Your task to perform on an android device: open app "Google Play services" Image 0: 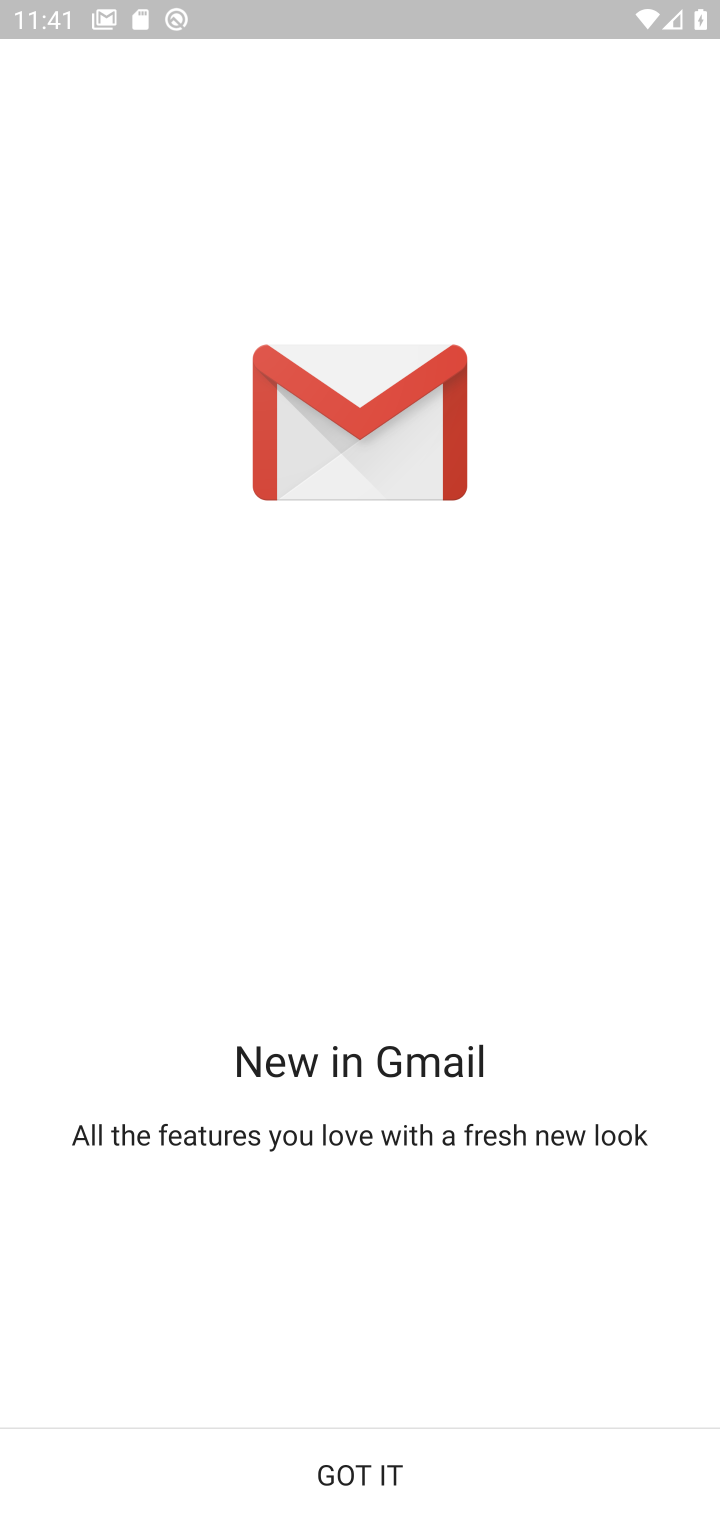
Step 0: press back button
Your task to perform on an android device: open app "Google Play services" Image 1: 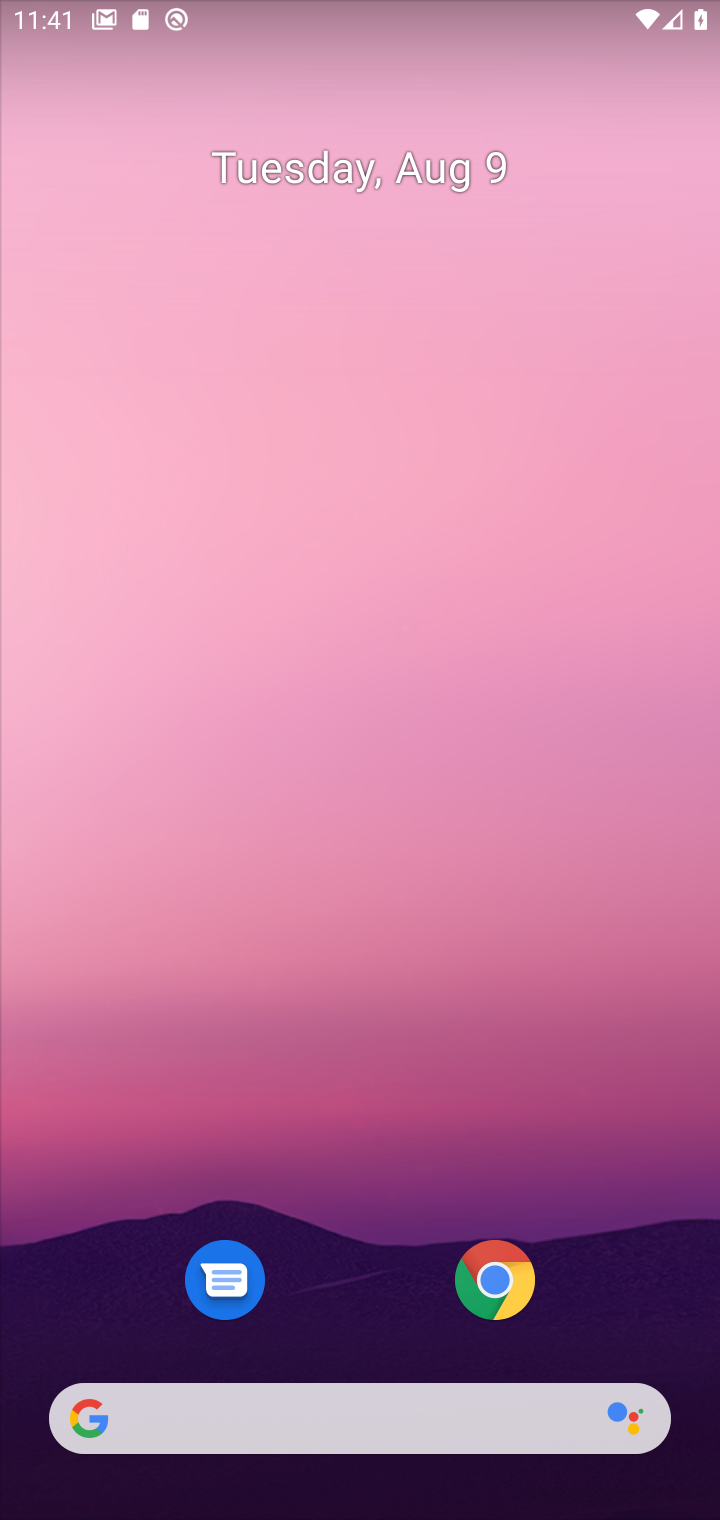
Step 1: drag from (363, 1225) to (577, 263)
Your task to perform on an android device: open app "Google Play services" Image 2: 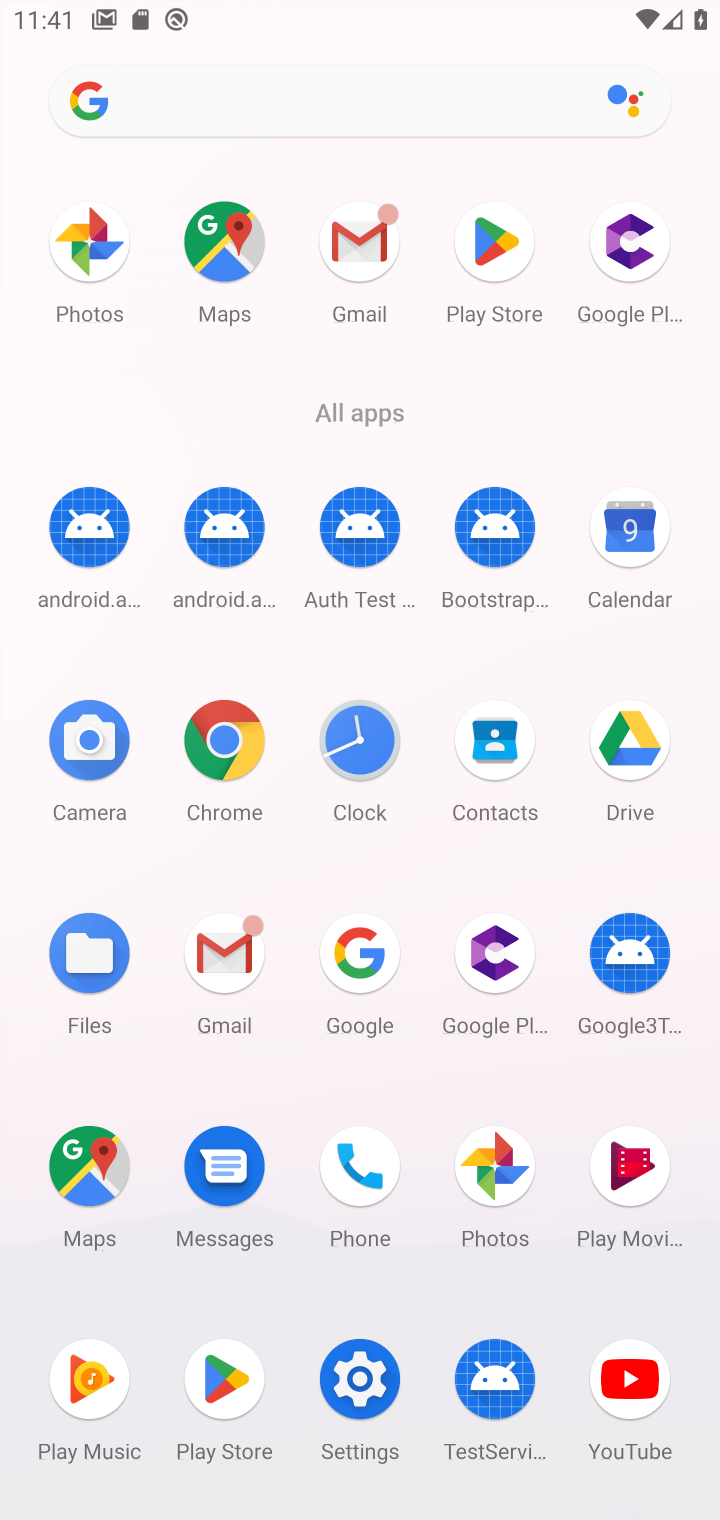
Step 2: click (500, 232)
Your task to perform on an android device: open app "Google Play services" Image 3: 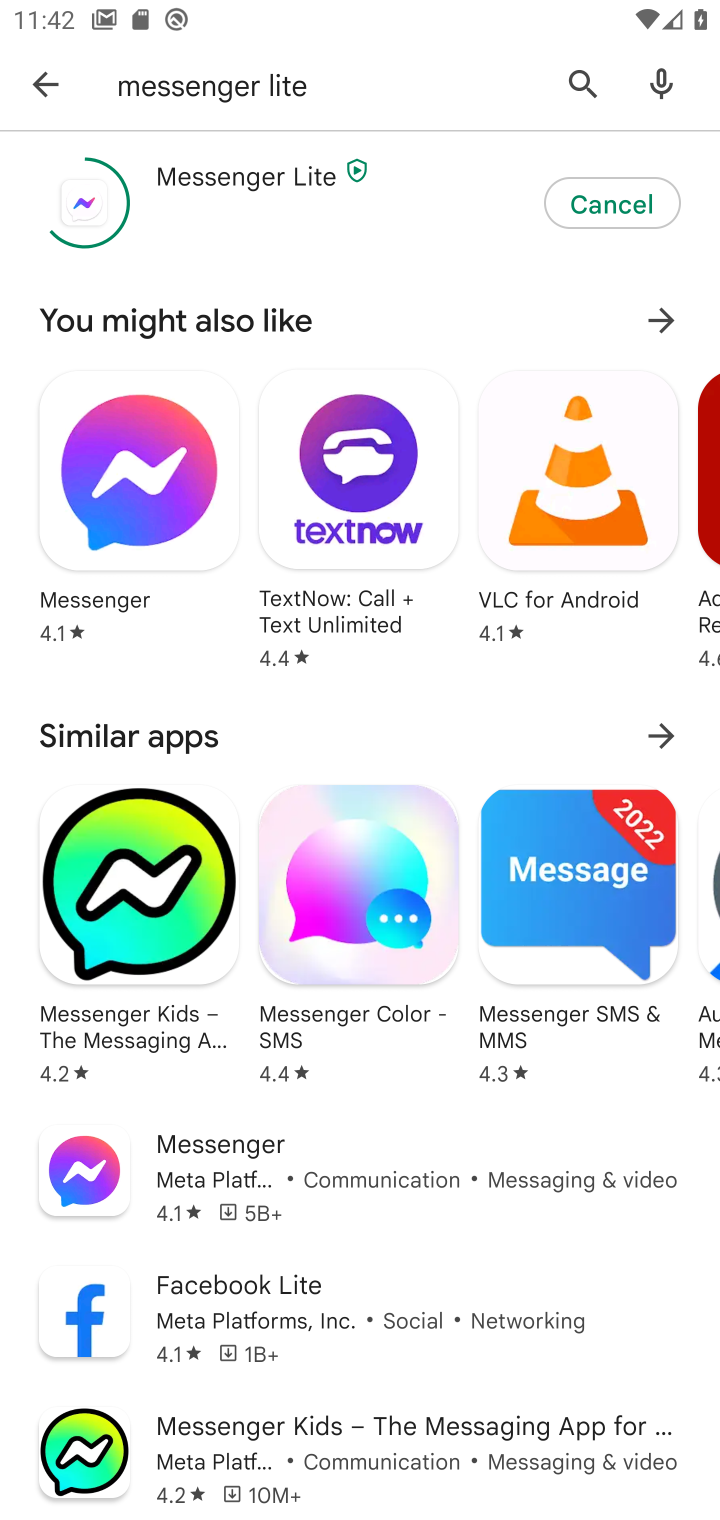
Step 3: click (599, 69)
Your task to perform on an android device: open app "Google Play services" Image 4: 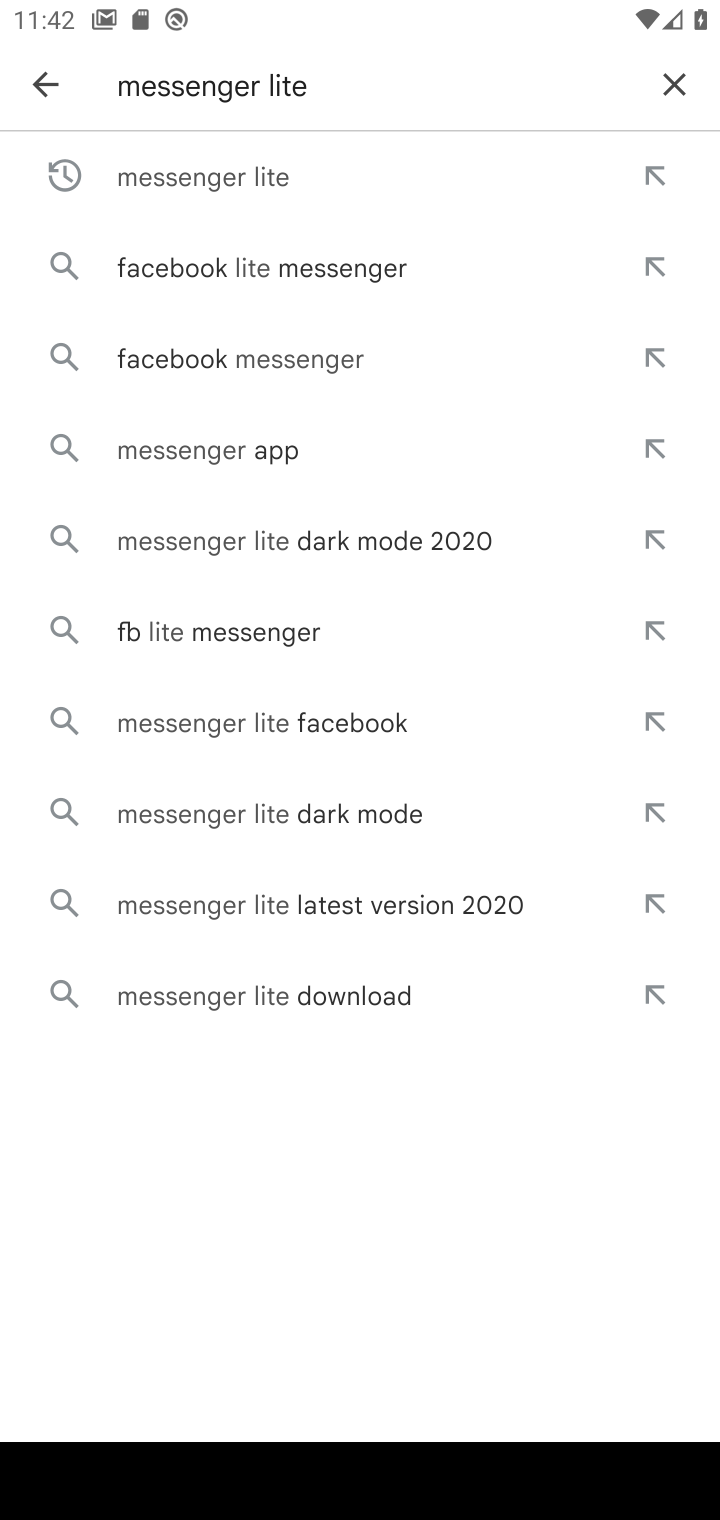
Step 4: click (668, 81)
Your task to perform on an android device: open app "Google Play services" Image 5: 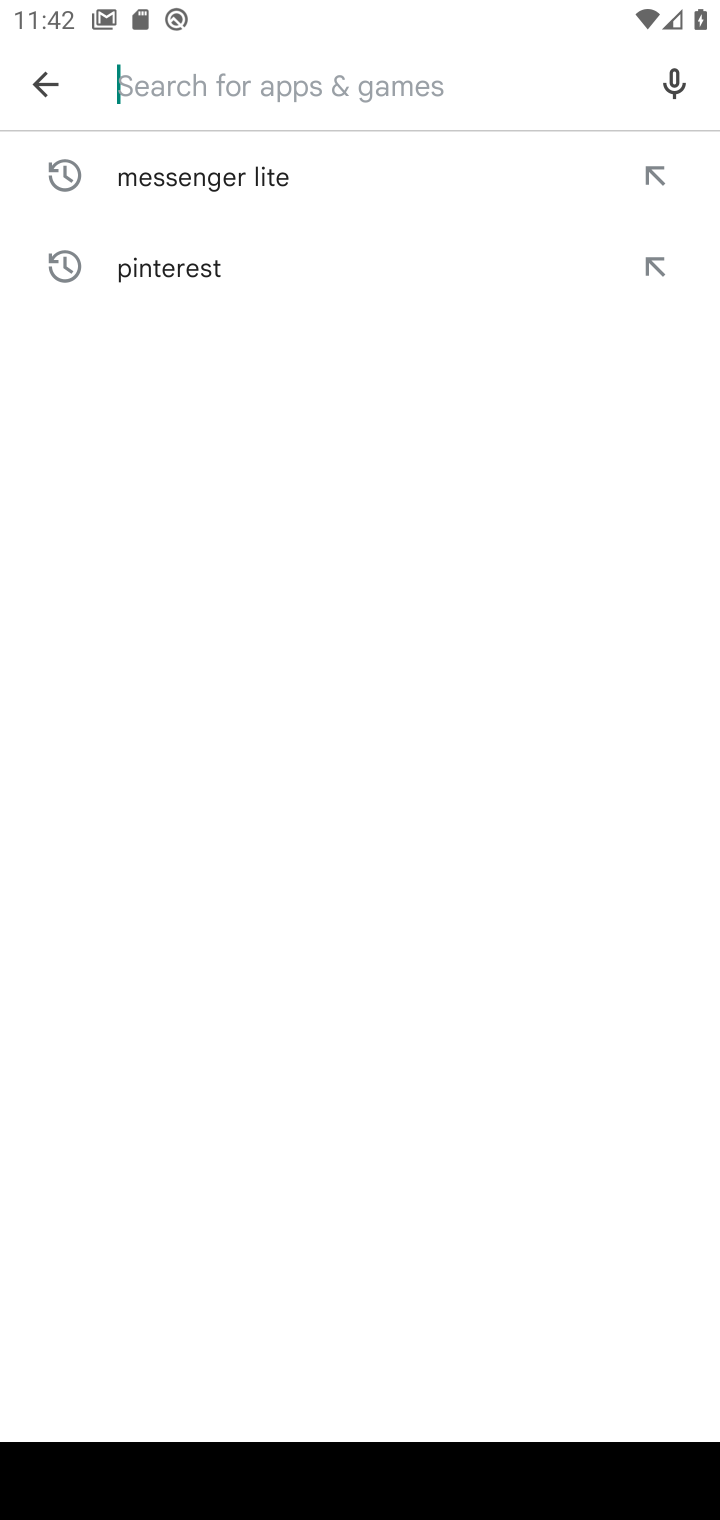
Step 5: click (208, 81)
Your task to perform on an android device: open app "Google Play services" Image 6: 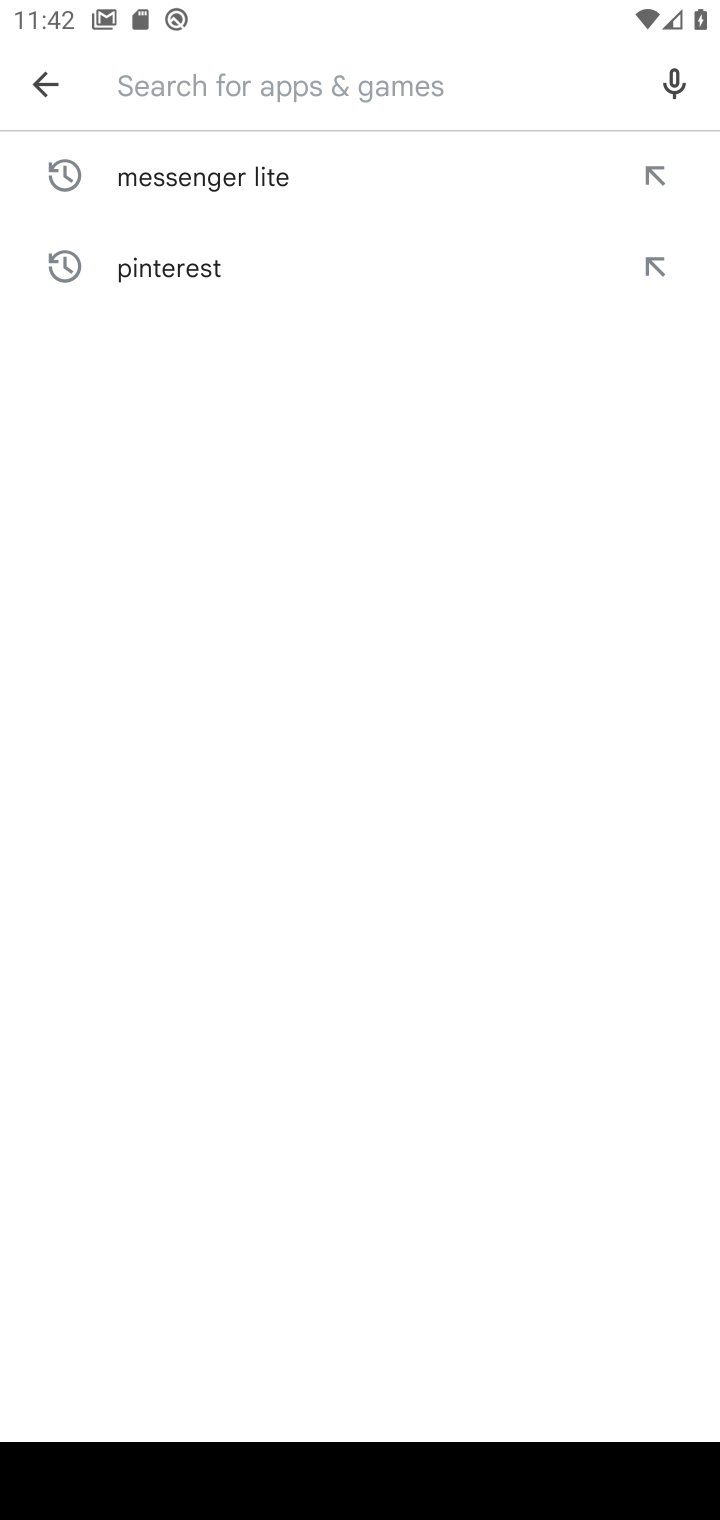
Step 6: type "Google Play services"
Your task to perform on an android device: open app "Google Play services" Image 7: 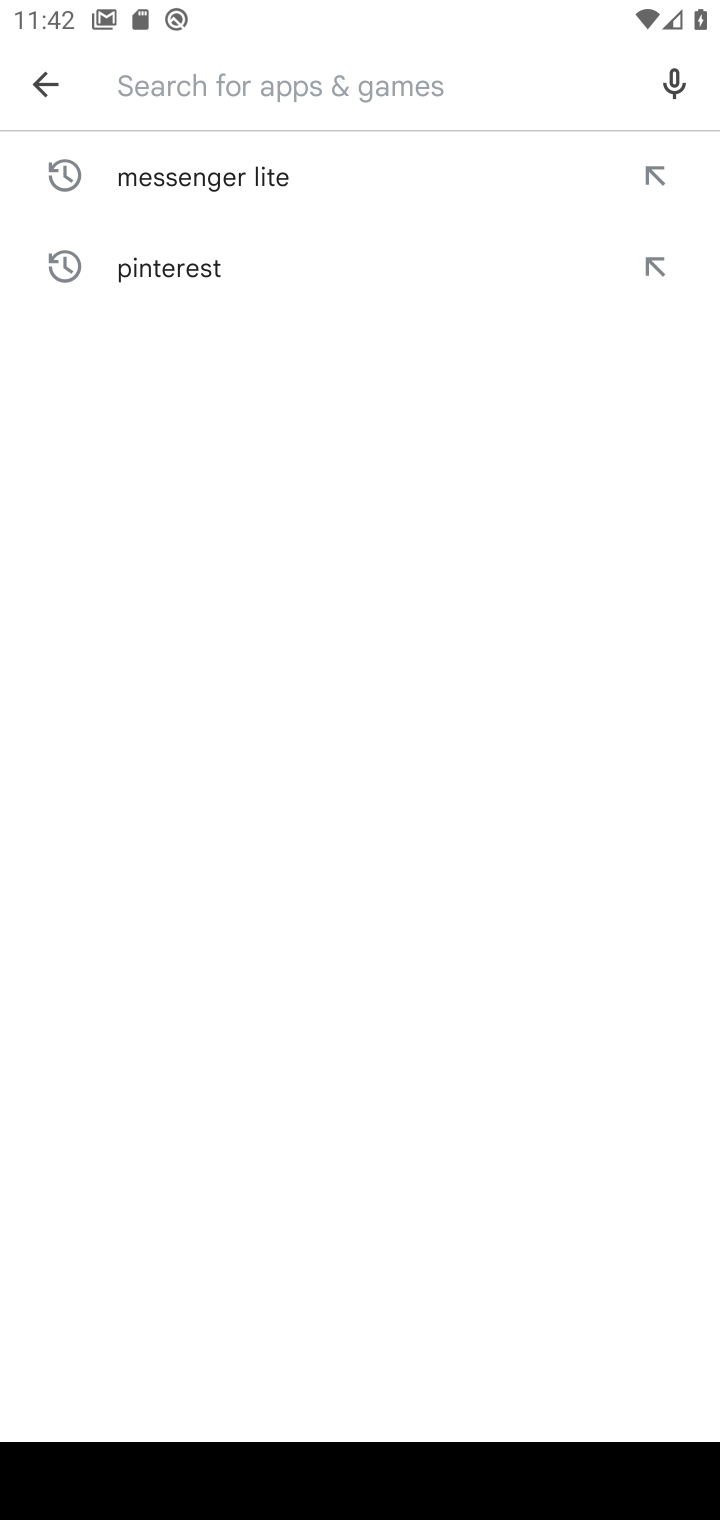
Step 7: click (176, 898)
Your task to perform on an android device: open app "Google Play services" Image 8: 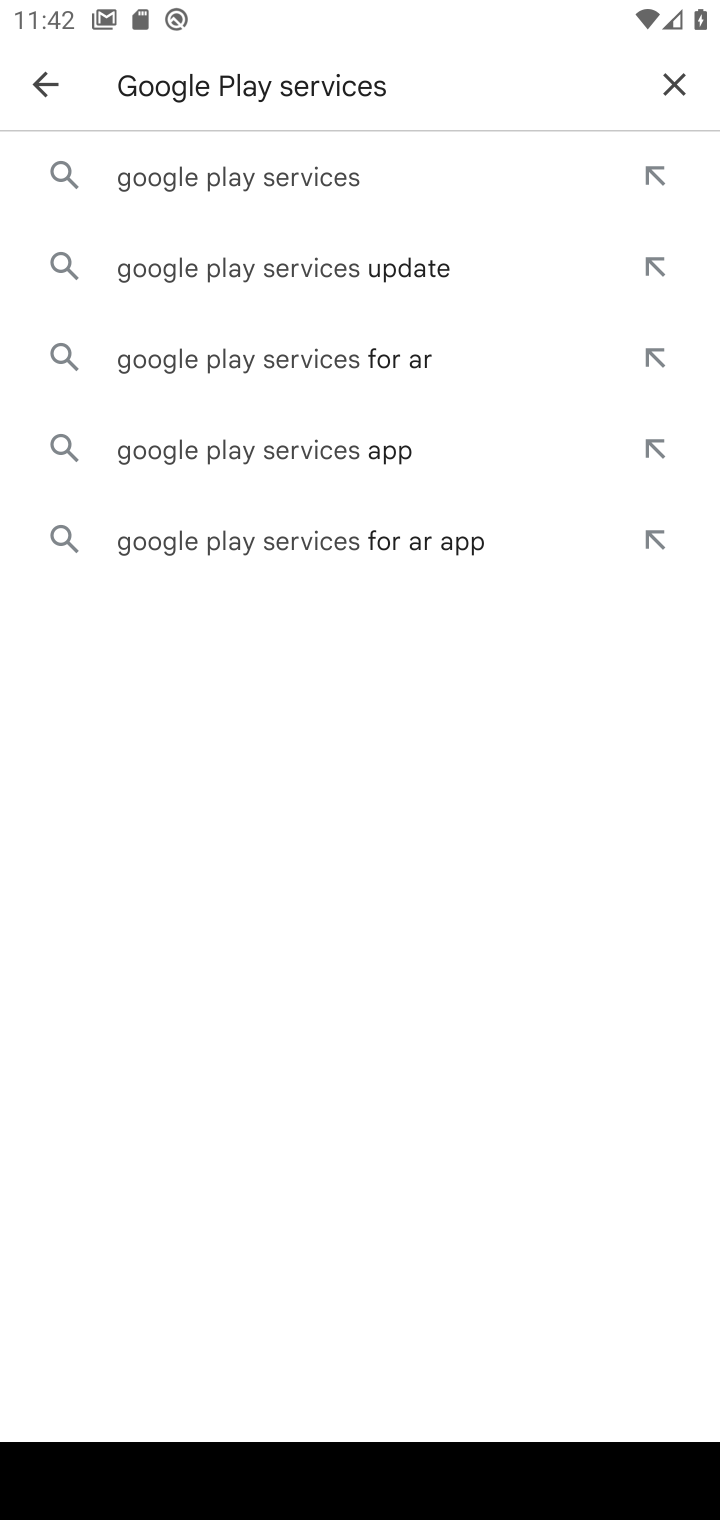
Step 8: click (266, 195)
Your task to perform on an android device: open app "Google Play services" Image 9: 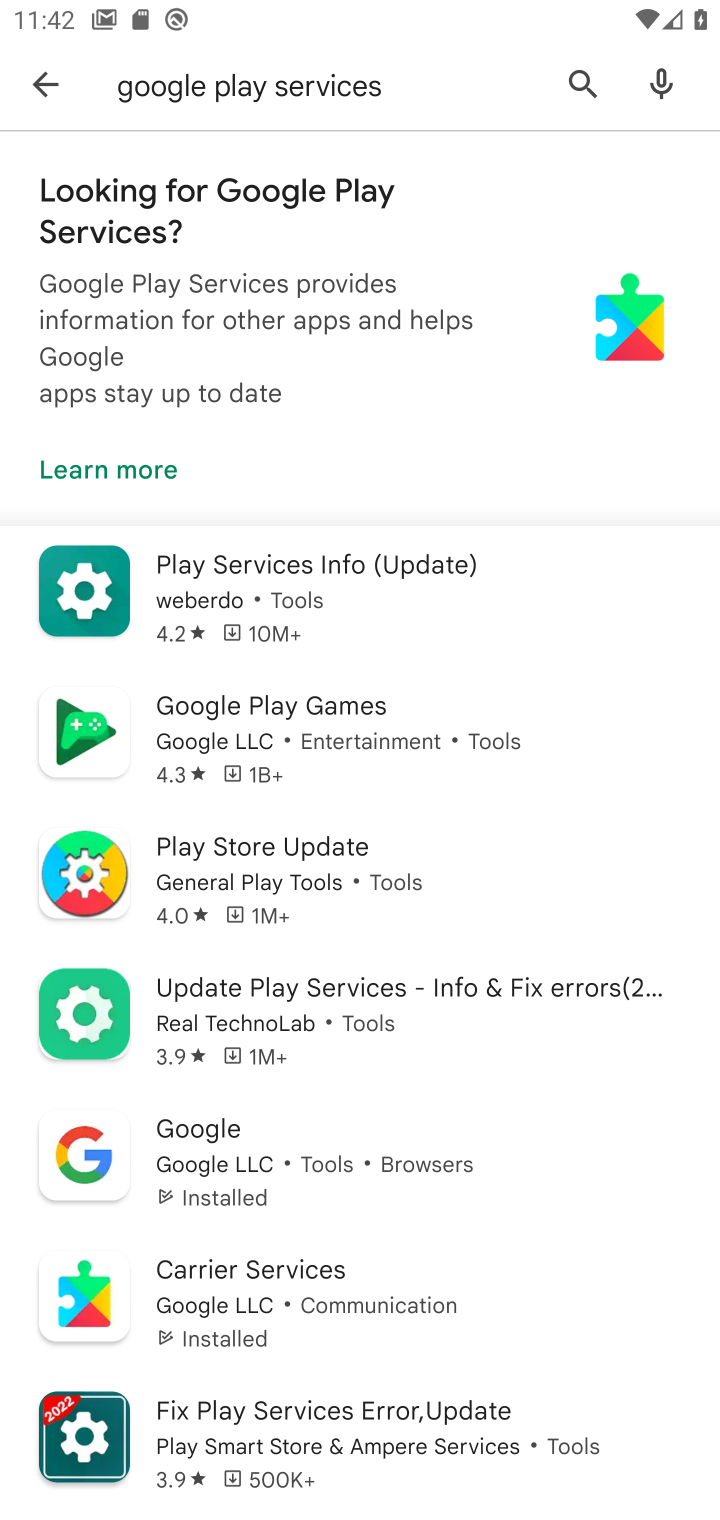
Step 9: task complete